Your task to perform on an android device: Open Chrome and go to settings Image 0: 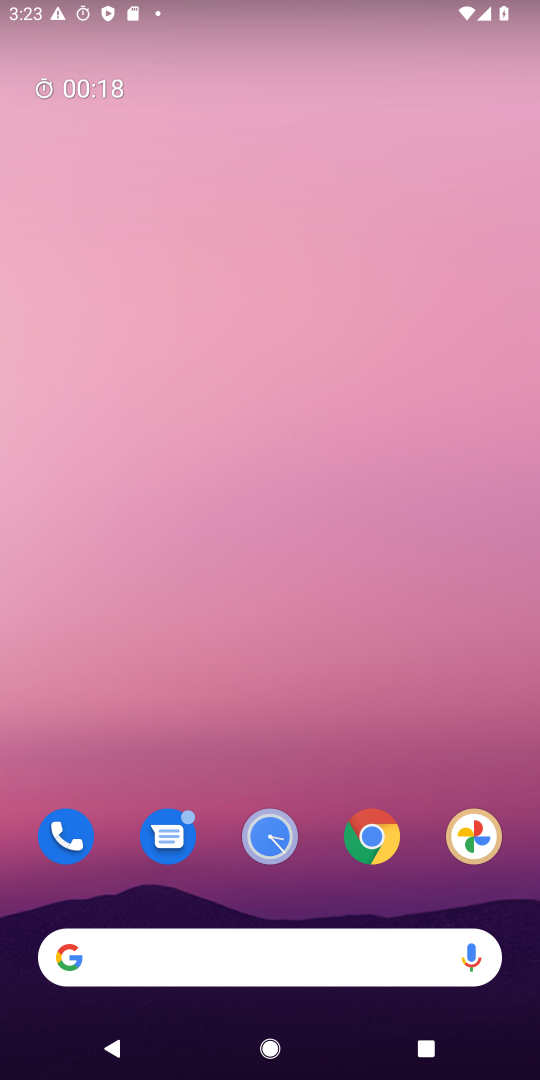
Step 0: click (390, 828)
Your task to perform on an android device: Open Chrome and go to settings Image 1: 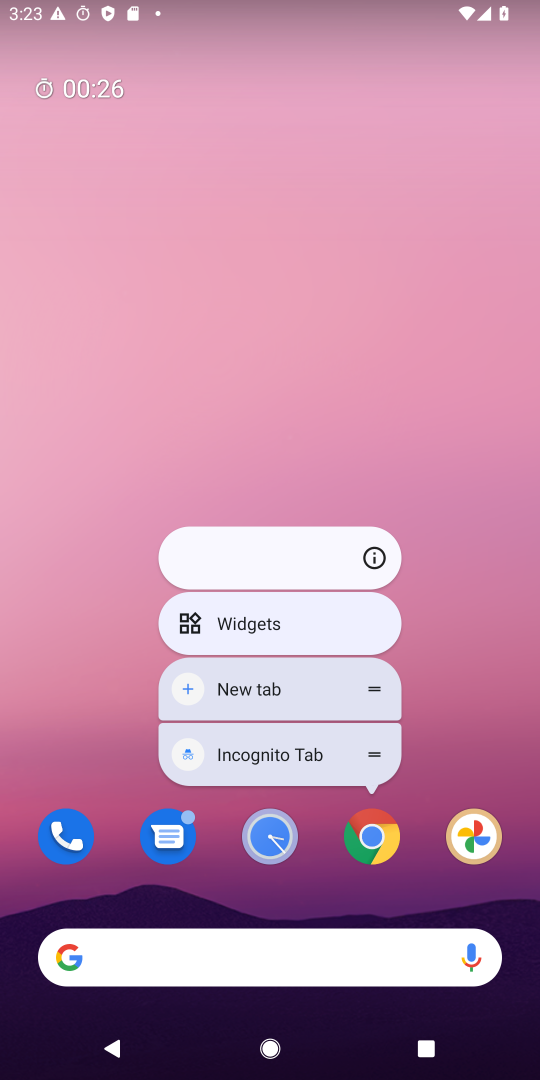
Step 1: click (362, 849)
Your task to perform on an android device: Open Chrome and go to settings Image 2: 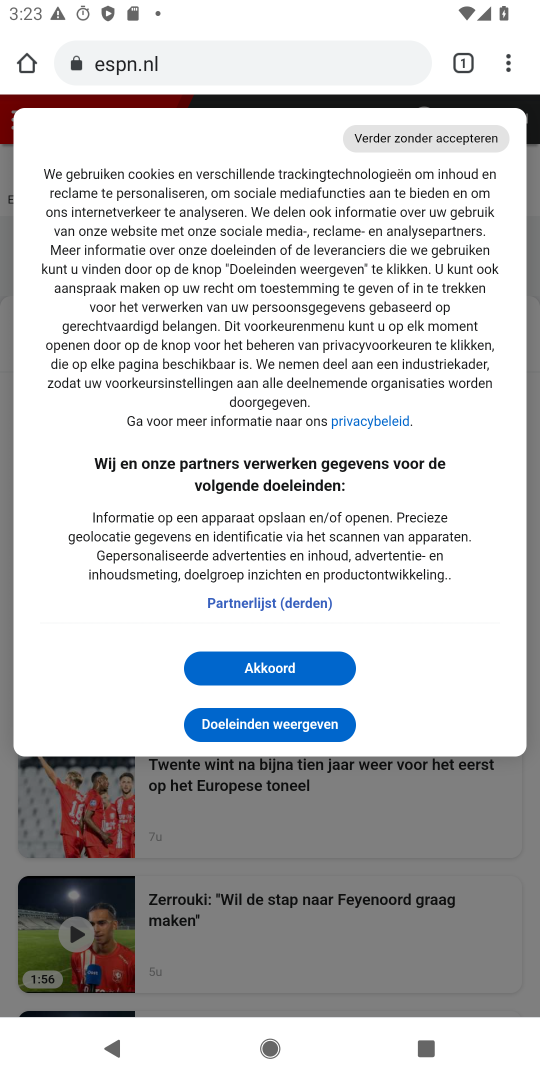
Step 2: click (503, 50)
Your task to perform on an android device: Open Chrome and go to settings Image 3: 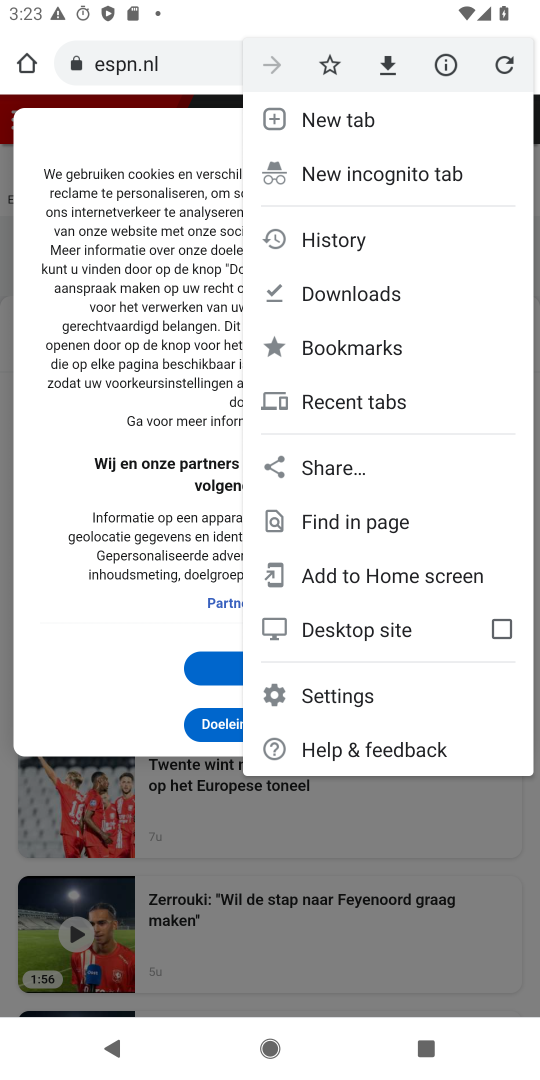
Step 3: click (342, 701)
Your task to perform on an android device: Open Chrome and go to settings Image 4: 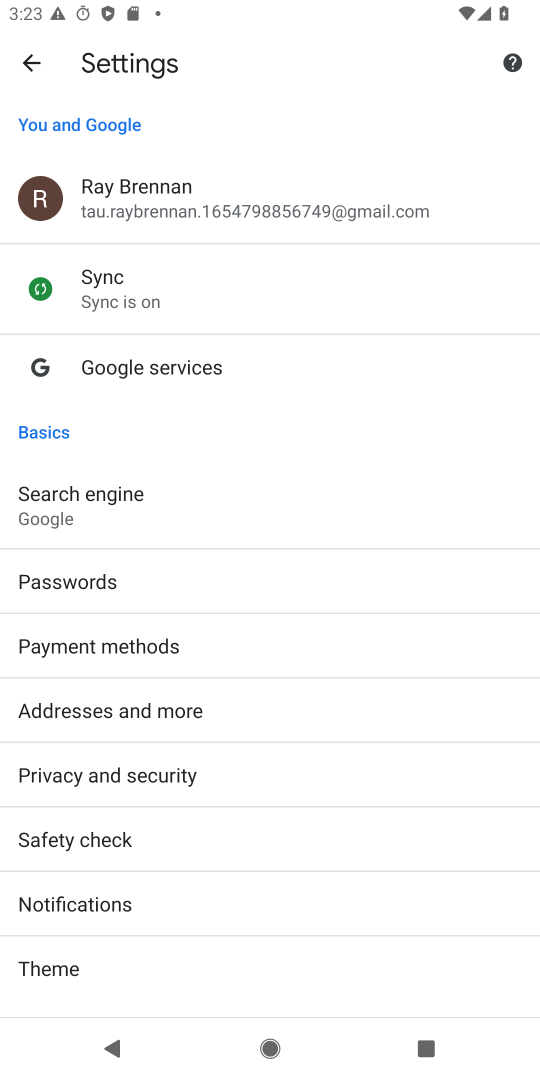
Step 4: task complete